Your task to perform on an android device: open app "Clock" Image 0: 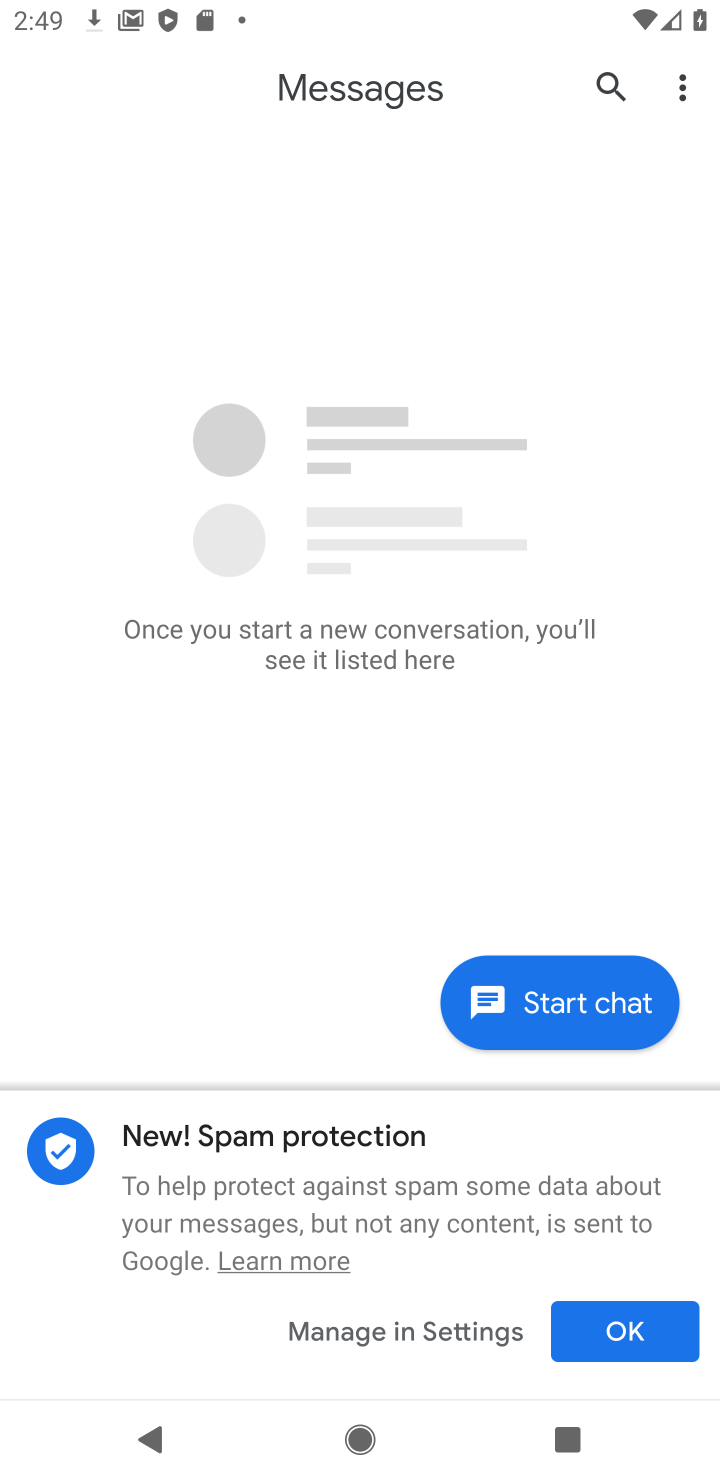
Step 0: press home button
Your task to perform on an android device: open app "Clock" Image 1: 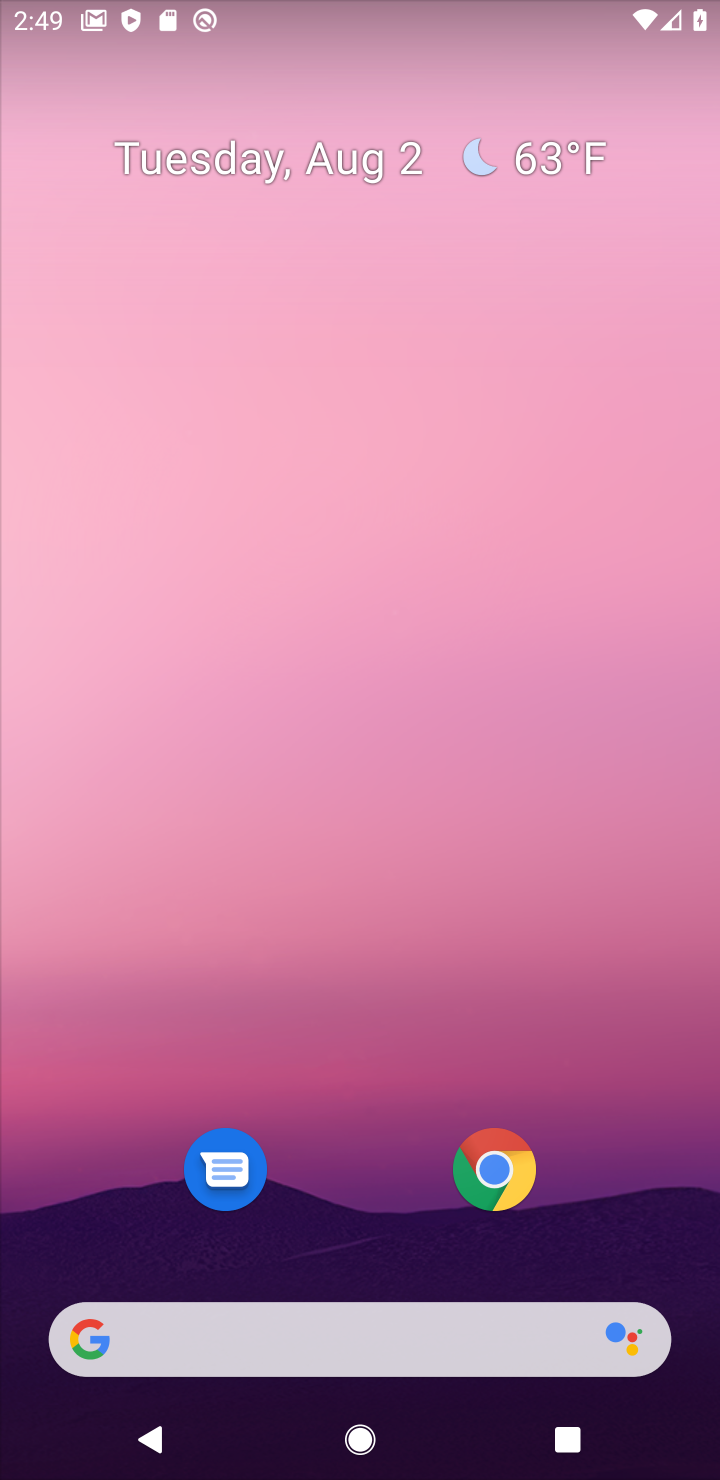
Step 1: drag from (310, 1165) to (438, 79)
Your task to perform on an android device: open app "Clock" Image 2: 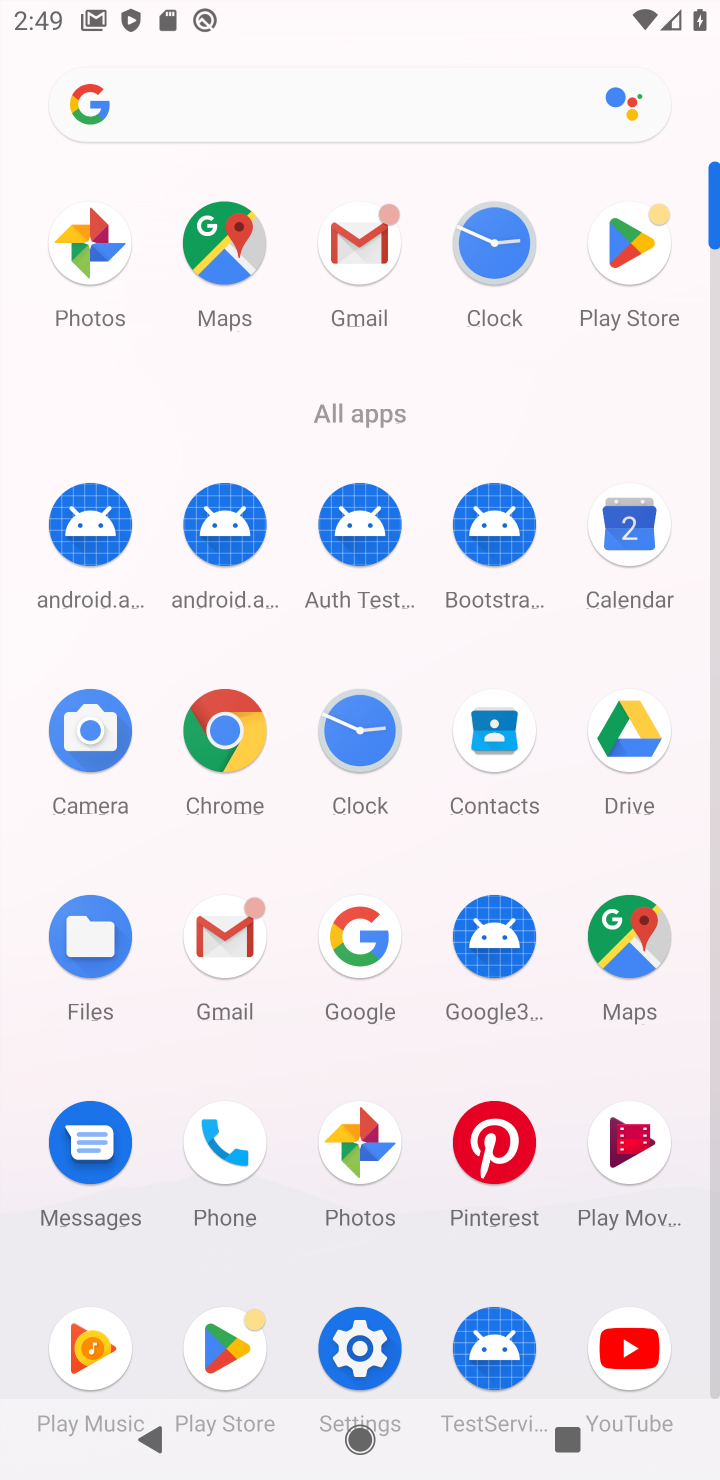
Step 2: click (669, 230)
Your task to perform on an android device: open app "Clock" Image 3: 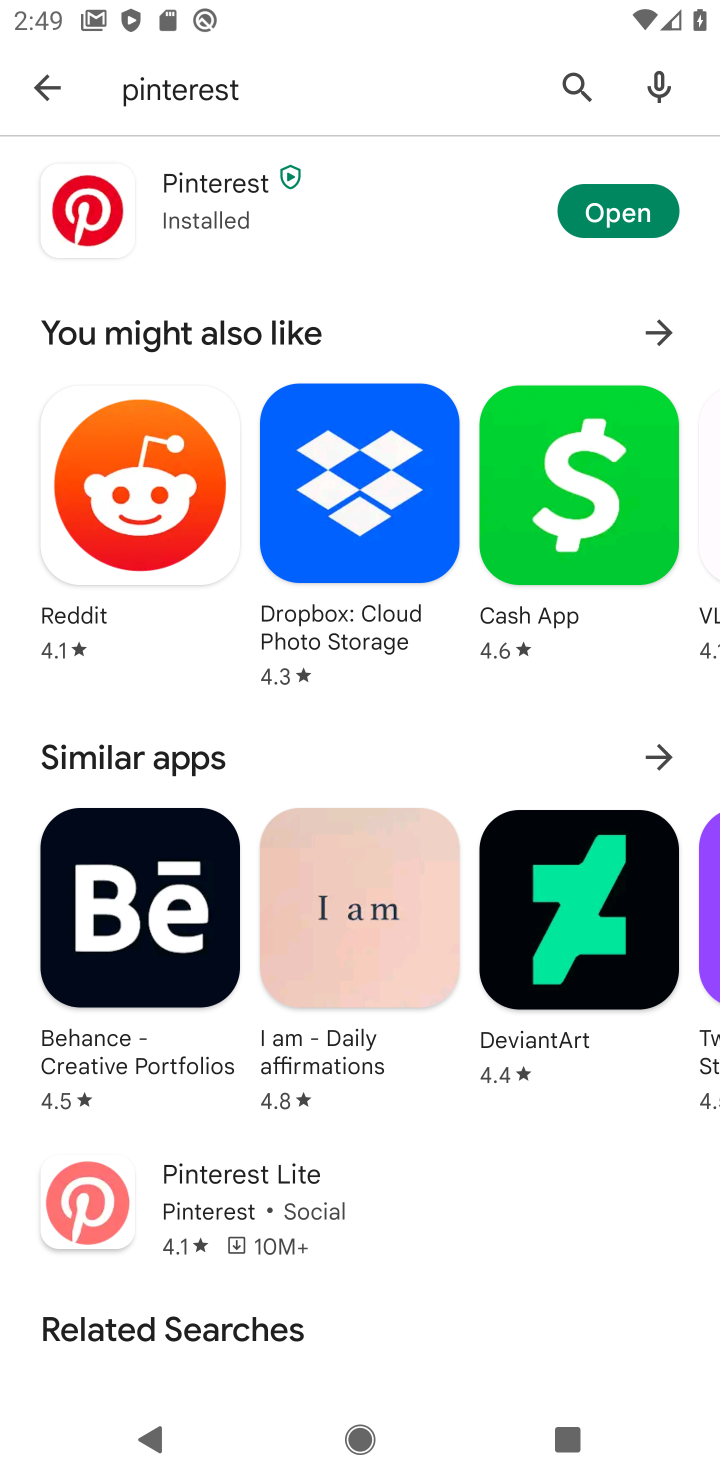
Step 3: click (51, 89)
Your task to perform on an android device: open app "Clock" Image 4: 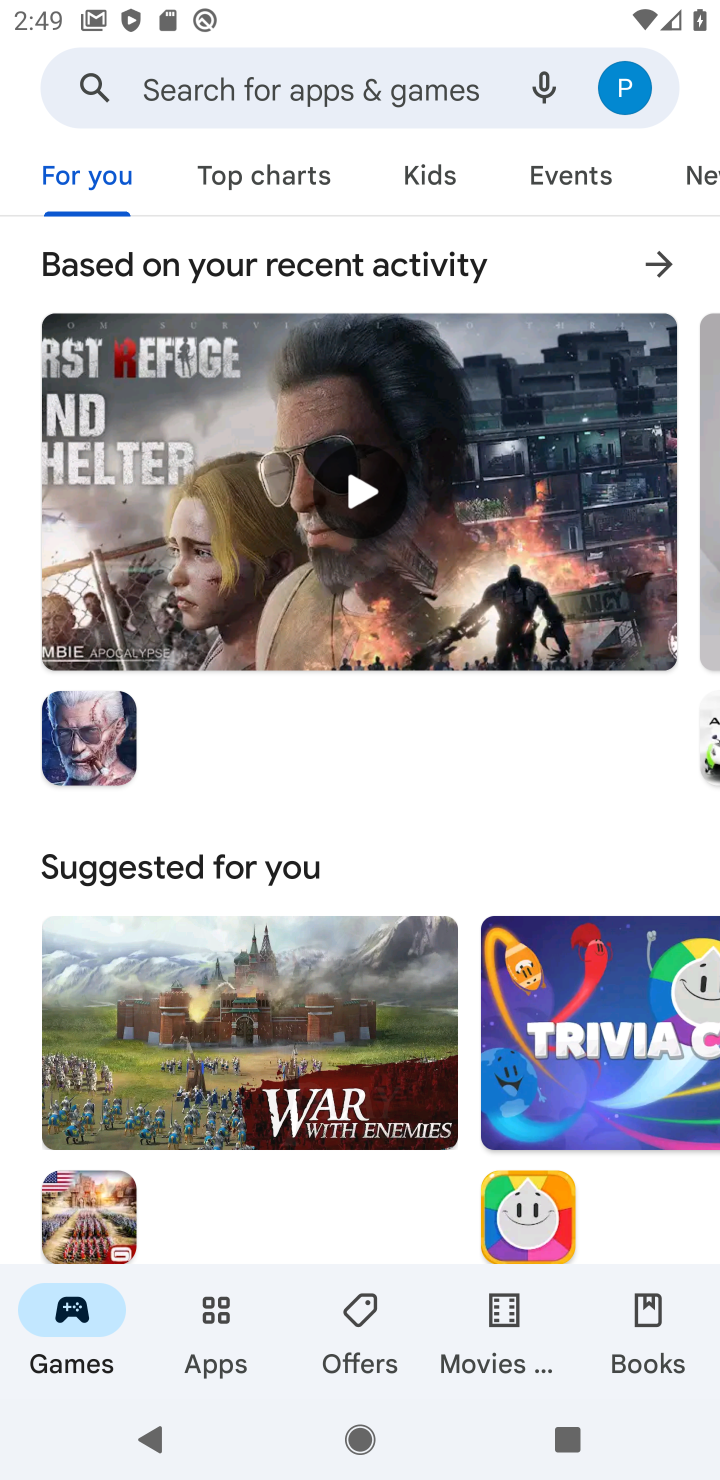
Step 4: click (194, 89)
Your task to perform on an android device: open app "Clock" Image 5: 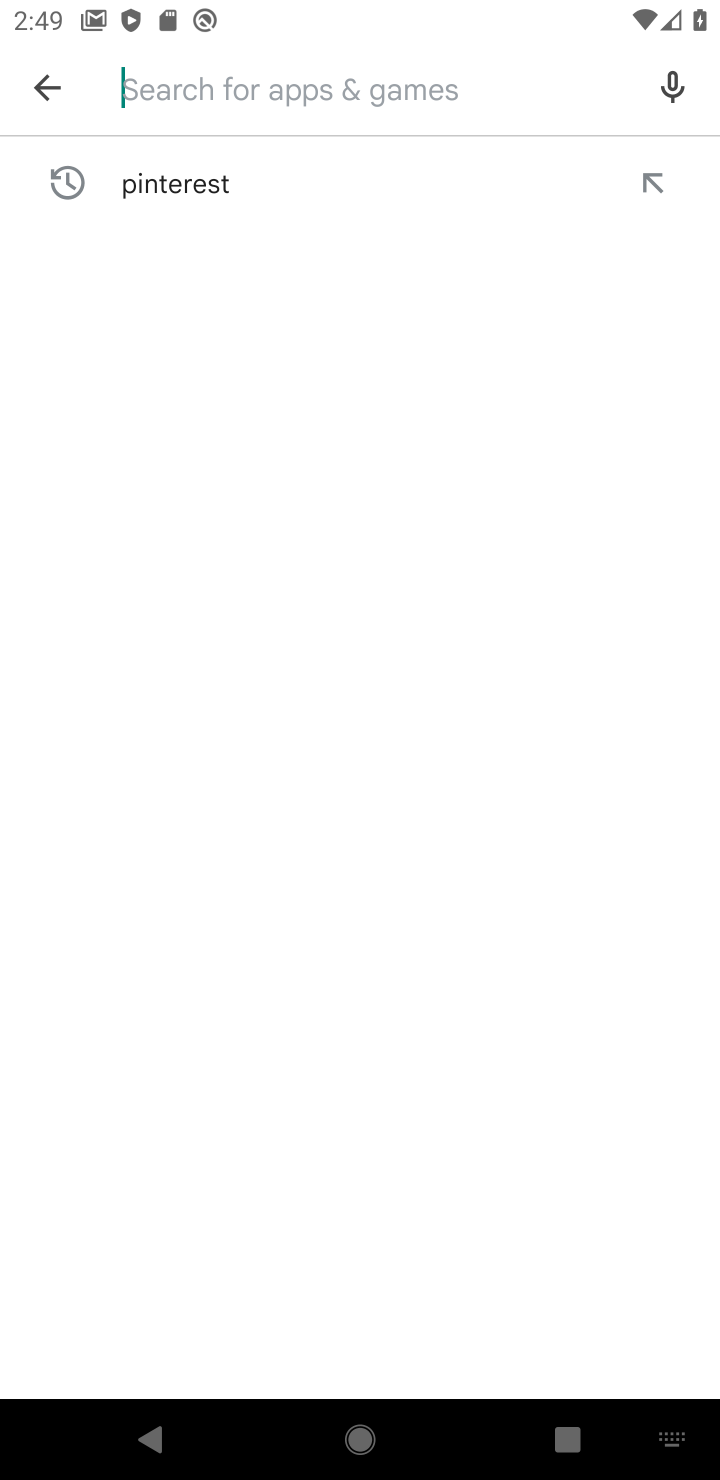
Step 5: type "Clock"
Your task to perform on an android device: open app "Clock" Image 6: 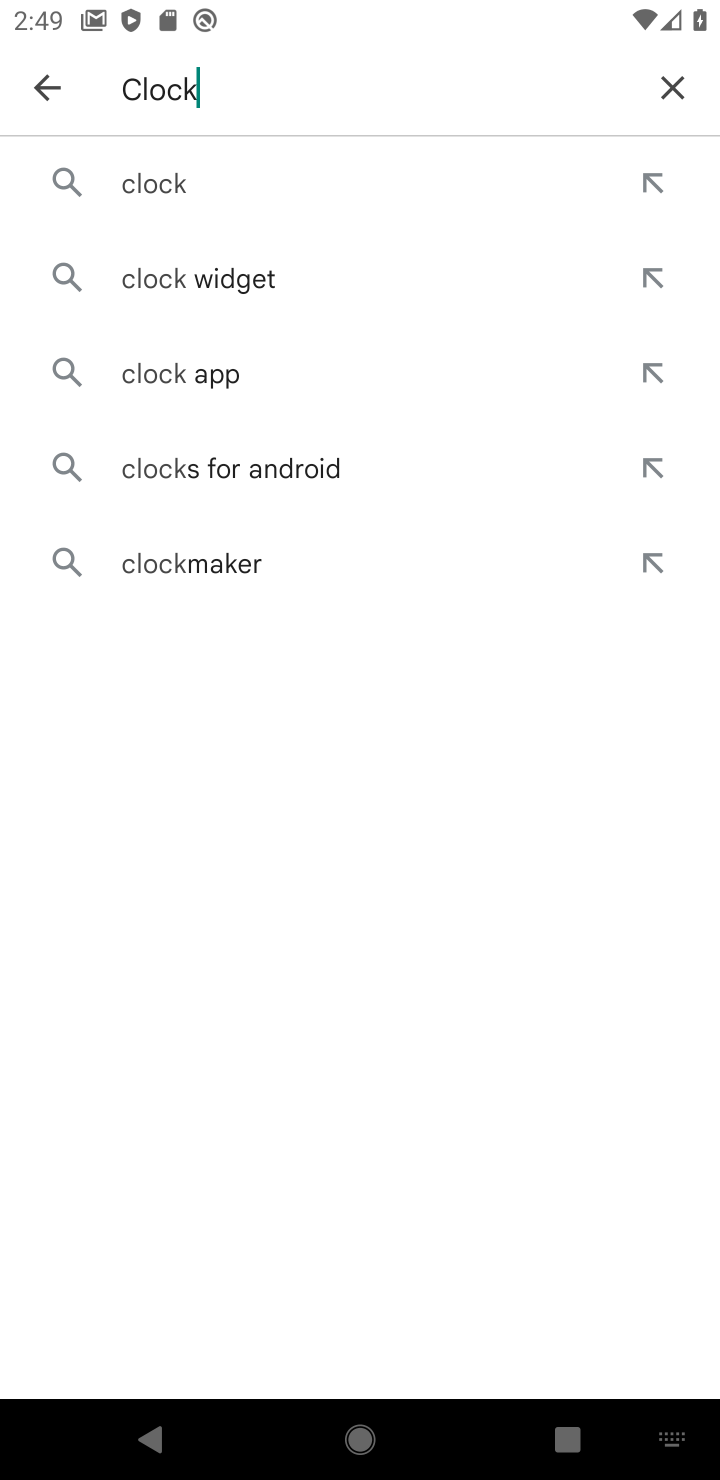
Step 6: click (179, 177)
Your task to perform on an android device: open app "Clock" Image 7: 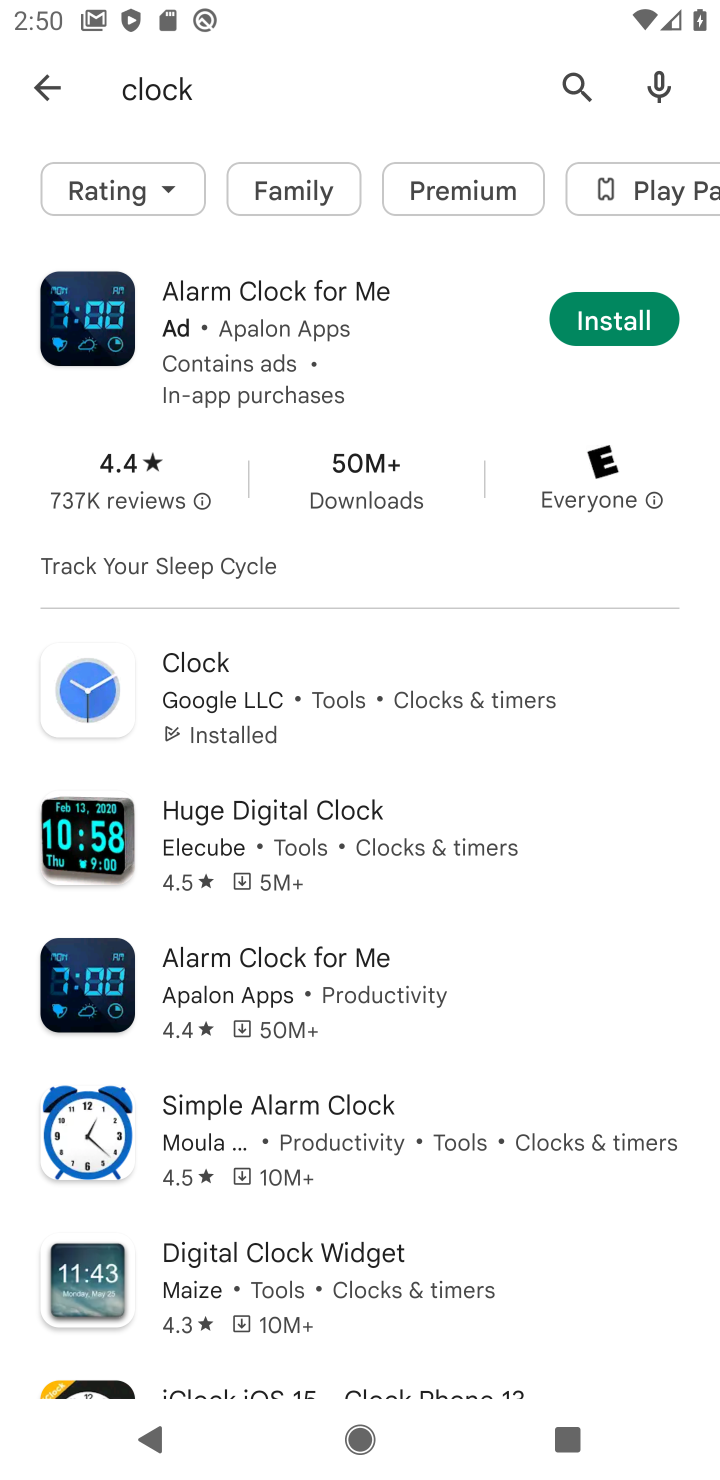
Step 7: click (282, 689)
Your task to perform on an android device: open app "Clock" Image 8: 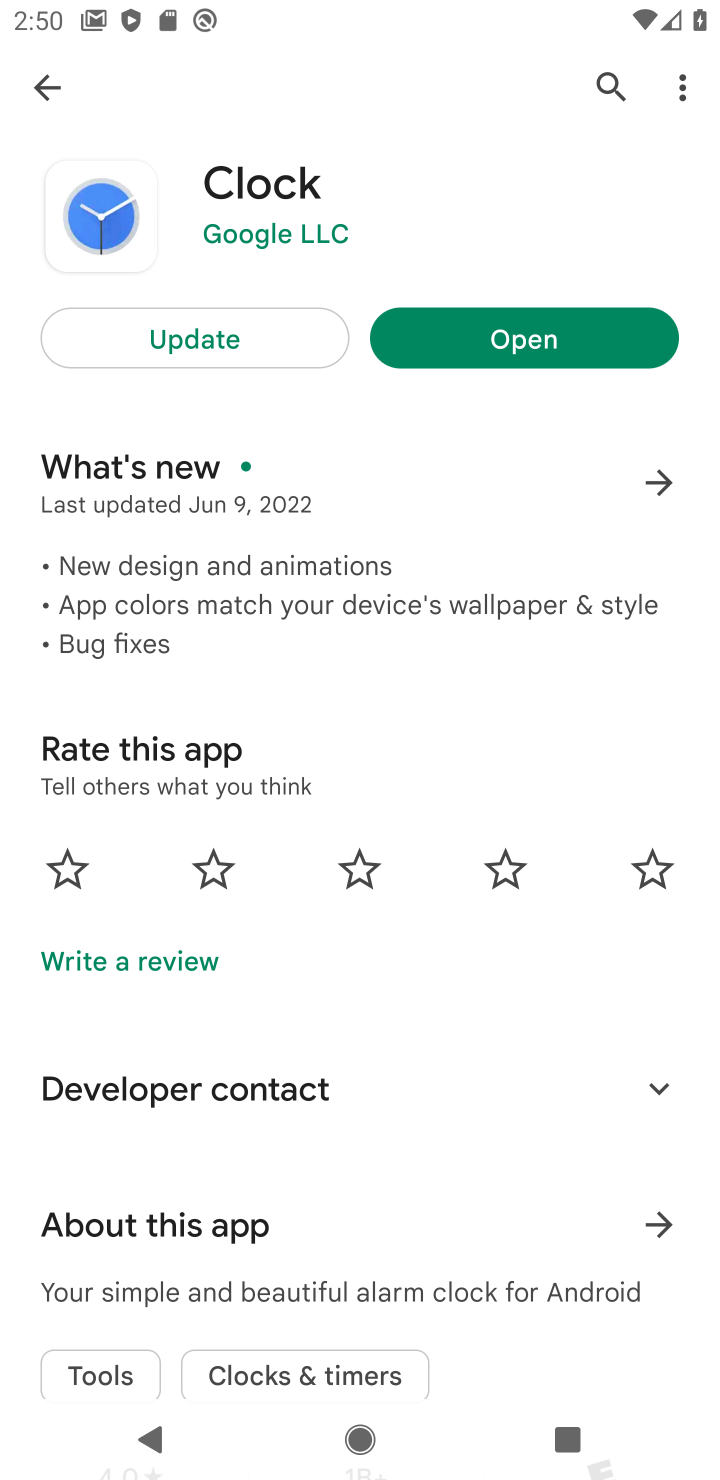
Step 8: click (550, 358)
Your task to perform on an android device: open app "Clock" Image 9: 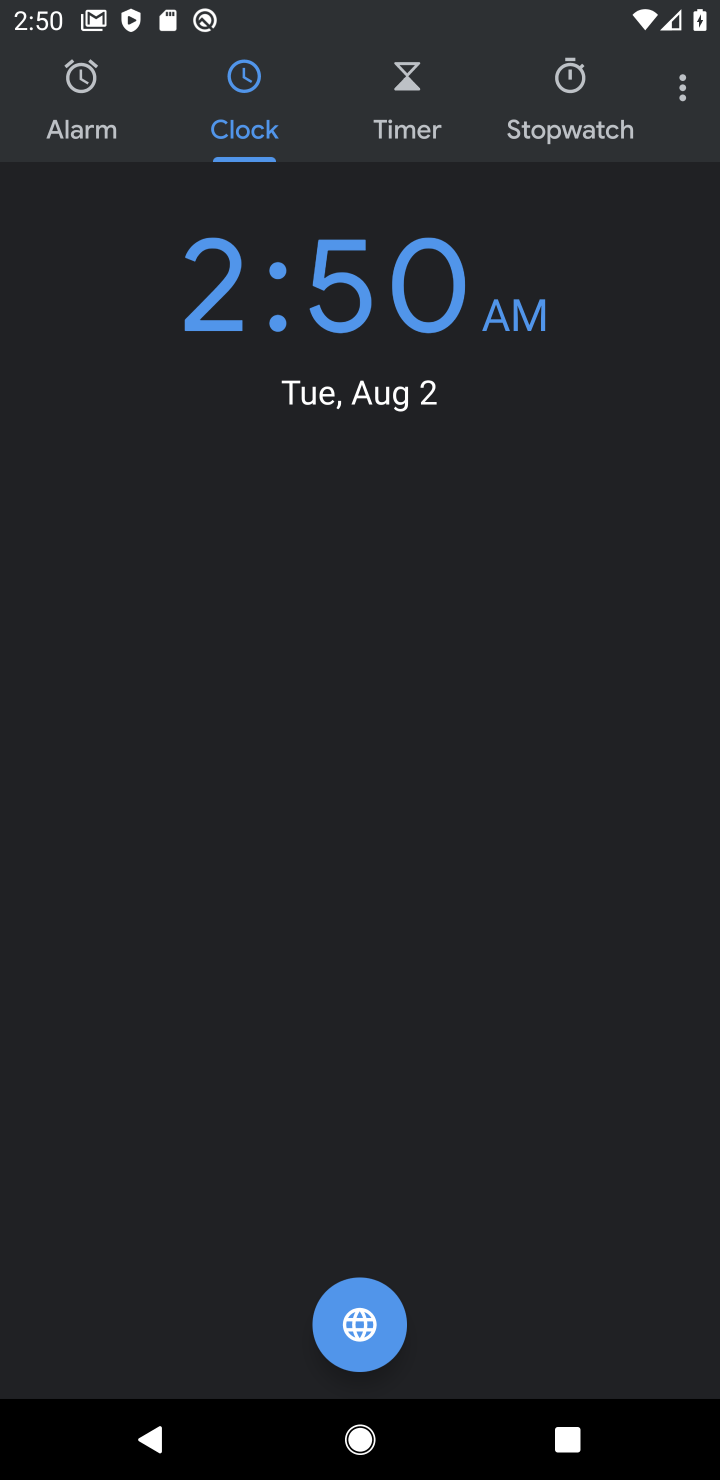
Step 9: task complete